Your task to perform on an android device: change notification settings in the gmail app Image 0: 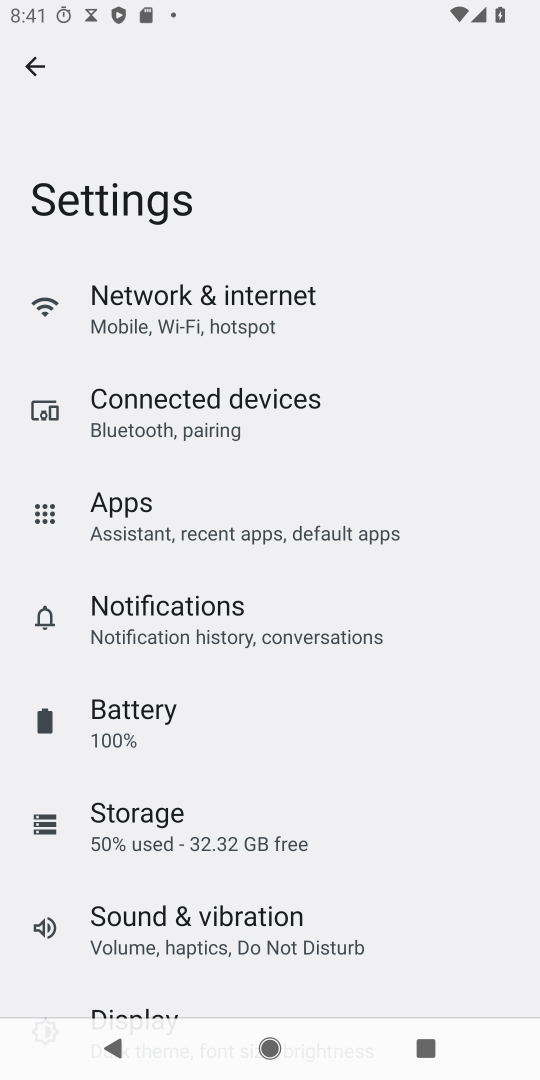
Step 0: press home button
Your task to perform on an android device: change notification settings in the gmail app Image 1: 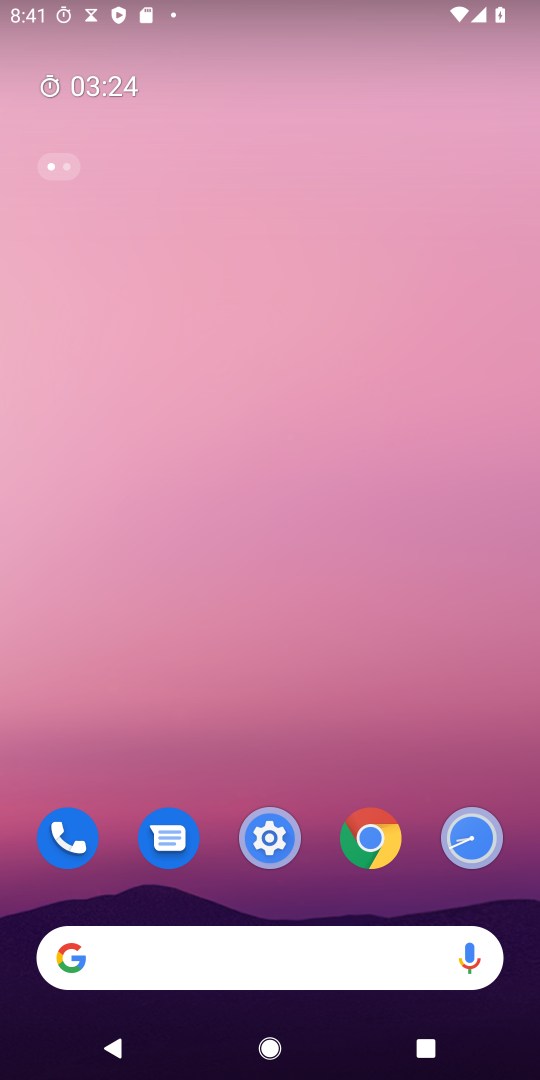
Step 1: drag from (196, 895) to (220, 99)
Your task to perform on an android device: change notification settings in the gmail app Image 2: 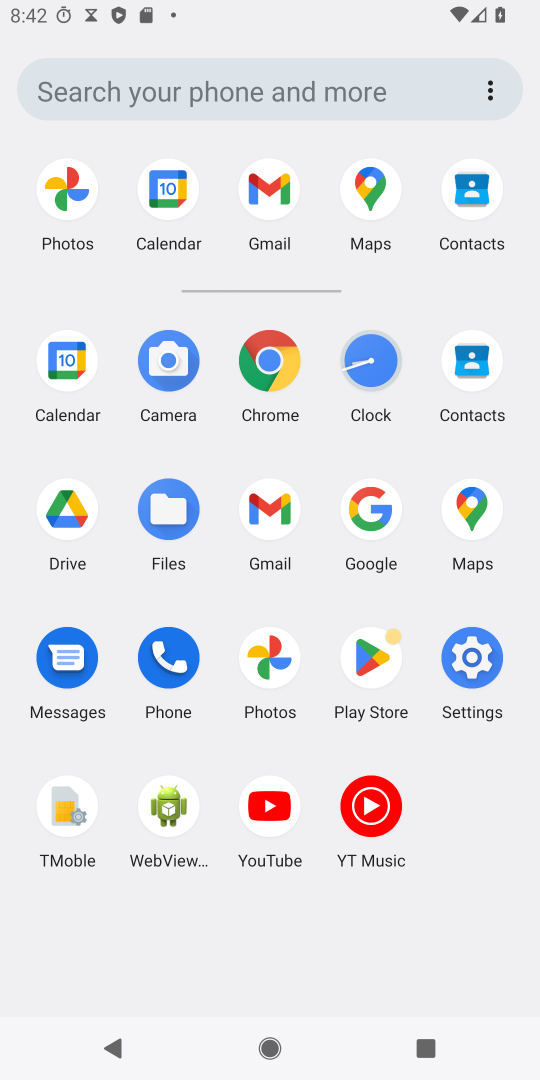
Step 2: click (247, 546)
Your task to perform on an android device: change notification settings in the gmail app Image 3: 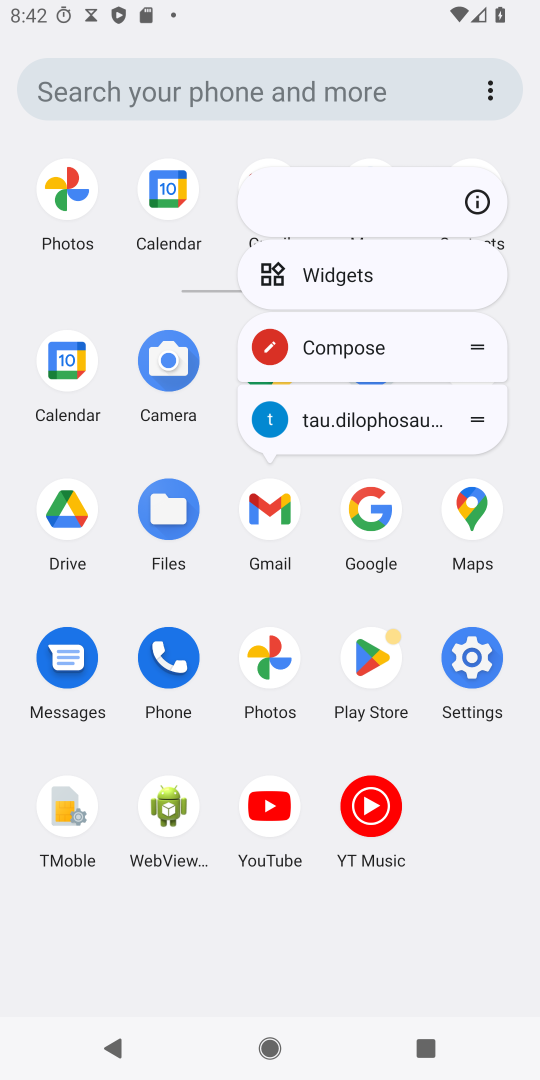
Step 3: click (468, 218)
Your task to perform on an android device: change notification settings in the gmail app Image 4: 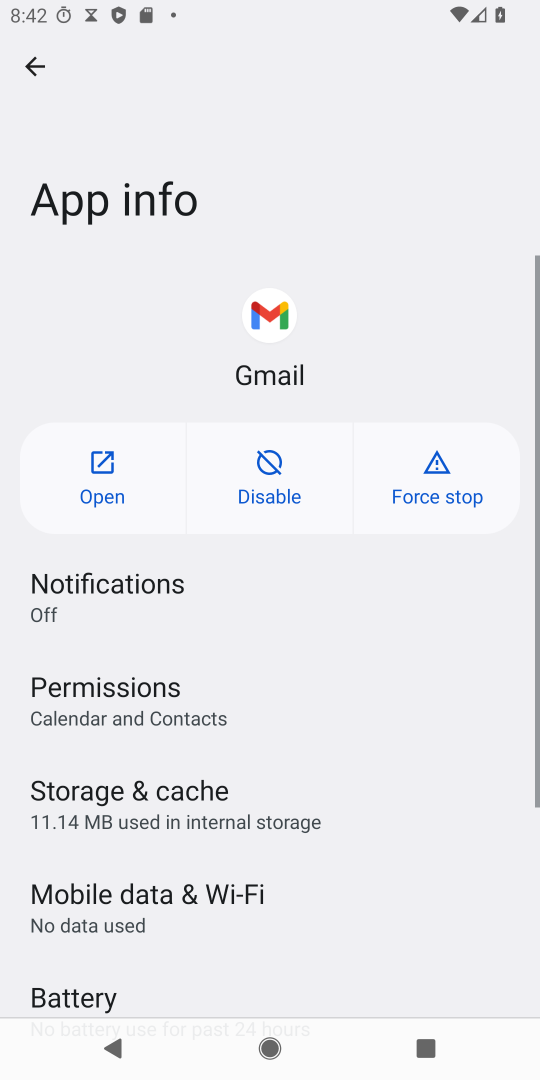
Step 4: task complete